Your task to perform on an android device: Go to sound settings Image 0: 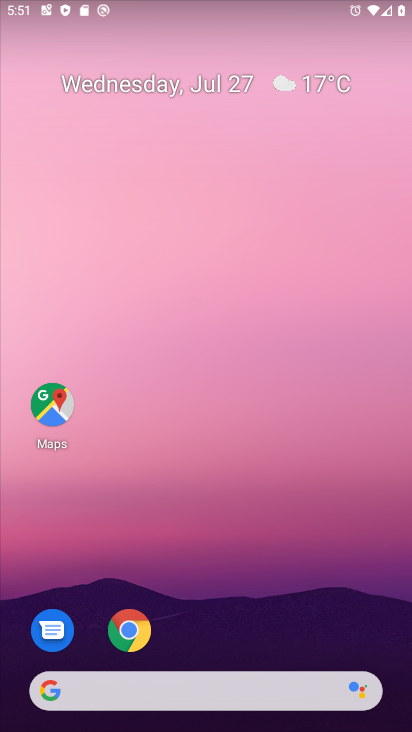
Step 0: drag from (247, 640) to (253, 117)
Your task to perform on an android device: Go to sound settings Image 1: 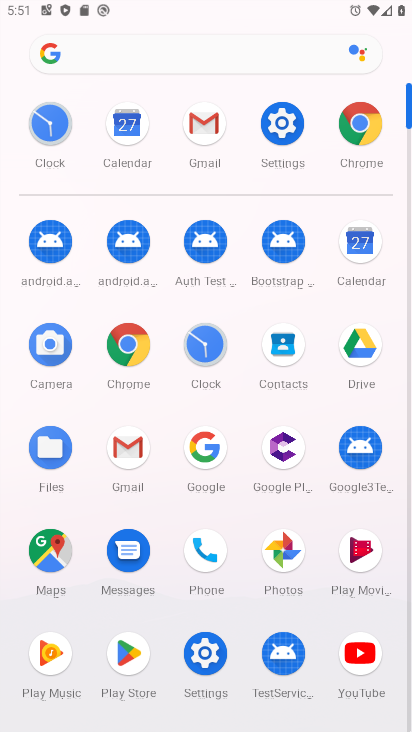
Step 1: click (277, 113)
Your task to perform on an android device: Go to sound settings Image 2: 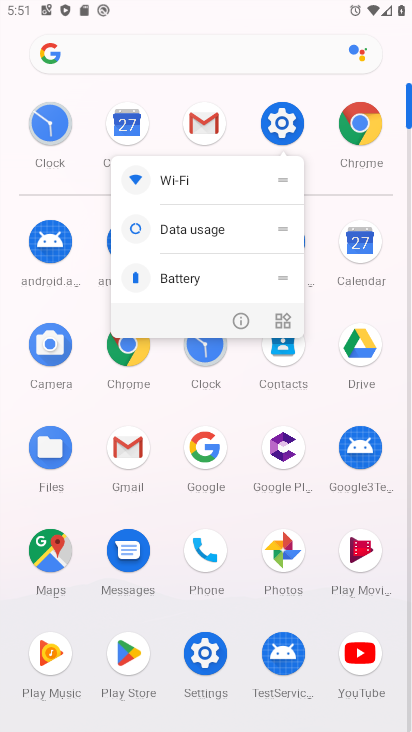
Step 2: click (279, 117)
Your task to perform on an android device: Go to sound settings Image 3: 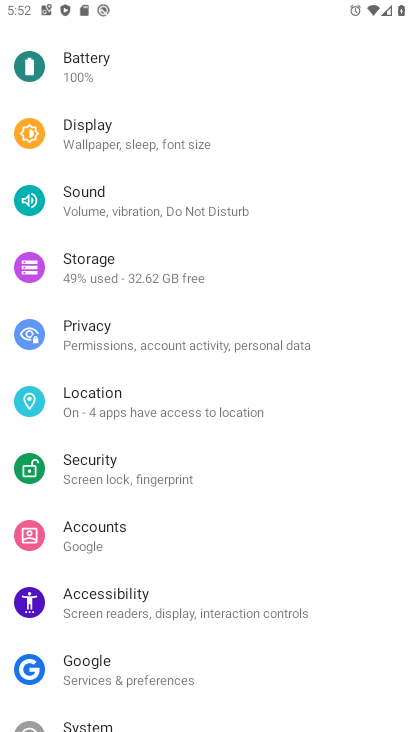
Step 3: click (130, 202)
Your task to perform on an android device: Go to sound settings Image 4: 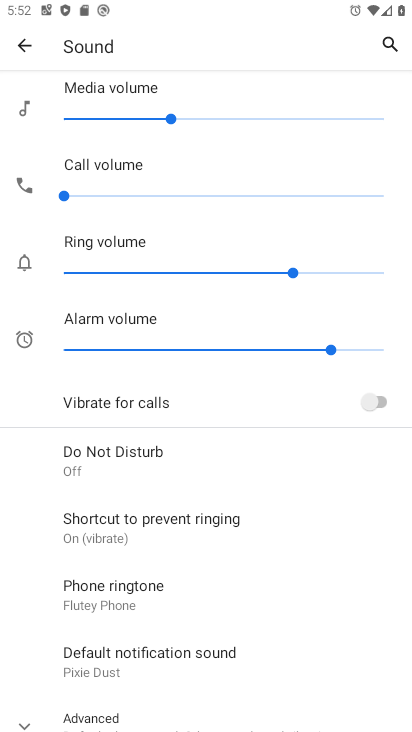
Step 4: task complete